Your task to perform on an android device: Open Google Image 0: 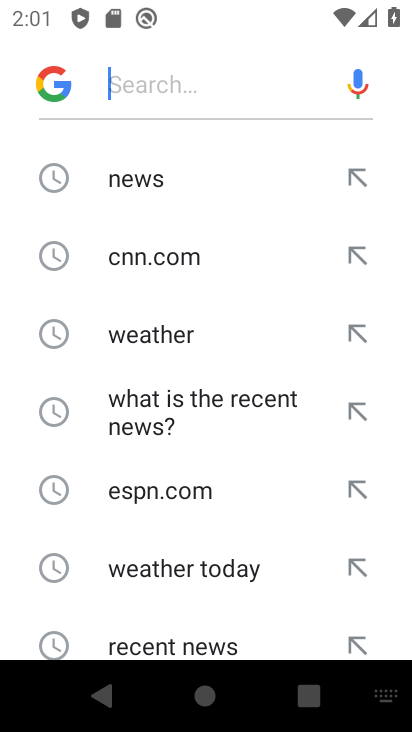
Step 0: press home button
Your task to perform on an android device: Open Google Image 1: 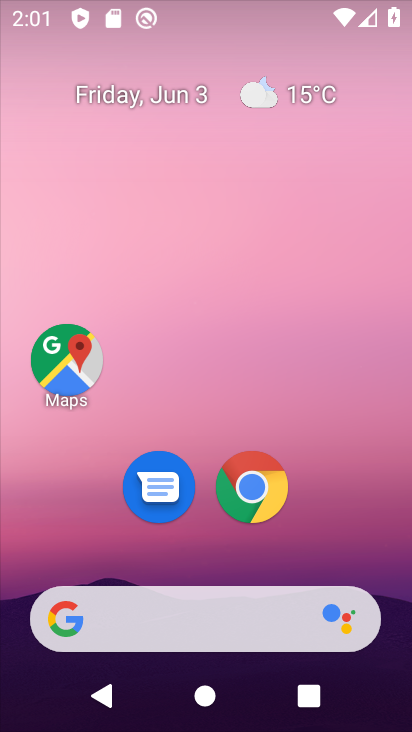
Step 1: drag from (200, 553) to (25, 2)
Your task to perform on an android device: Open Google Image 2: 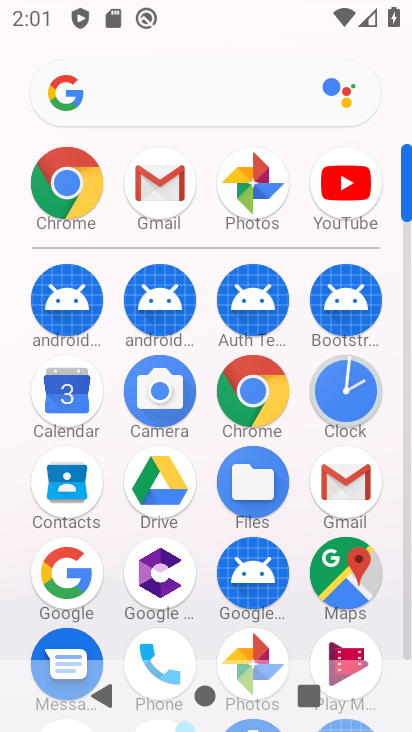
Step 2: click (60, 562)
Your task to perform on an android device: Open Google Image 3: 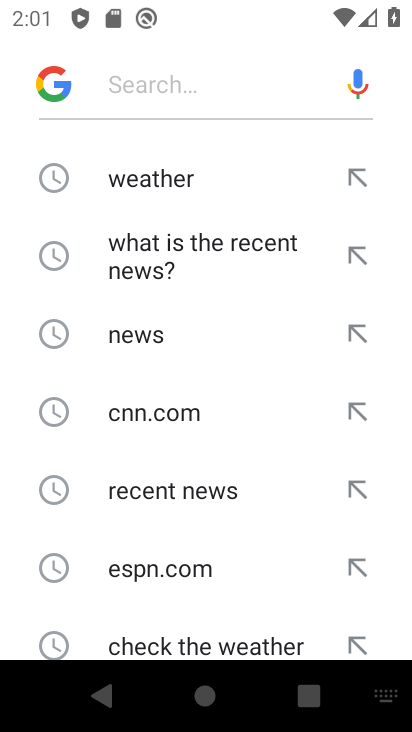
Step 3: task complete